Your task to perform on an android device: Check the weather Image 0: 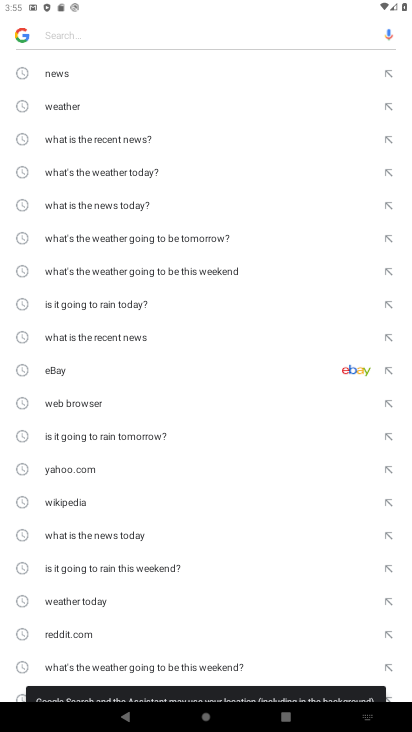
Step 0: click (53, 106)
Your task to perform on an android device: Check the weather Image 1: 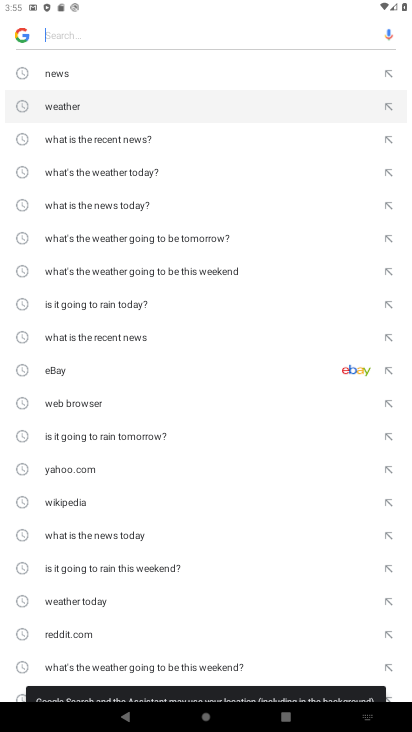
Step 1: click (67, 103)
Your task to perform on an android device: Check the weather Image 2: 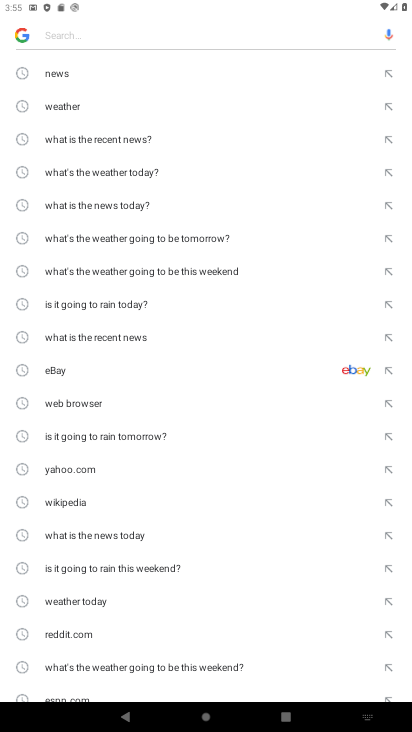
Step 2: click (67, 103)
Your task to perform on an android device: Check the weather Image 3: 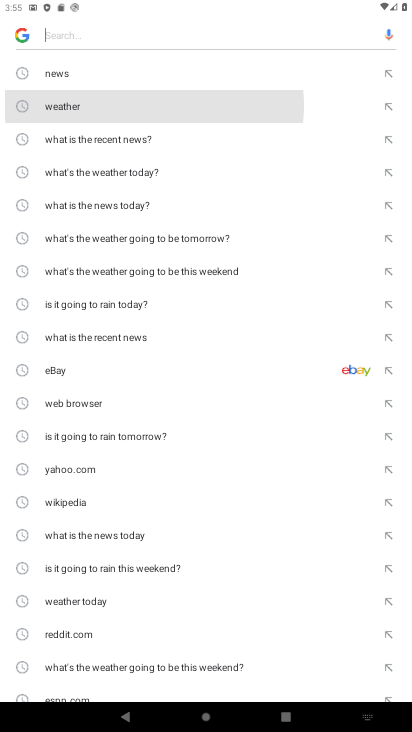
Step 3: click (68, 103)
Your task to perform on an android device: Check the weather Image 4: 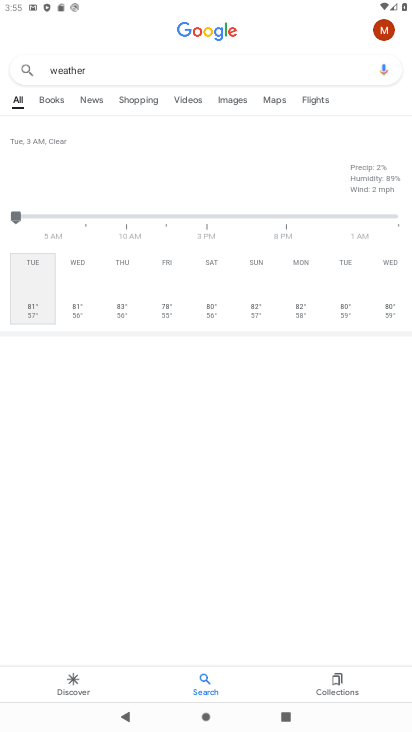
Step 4: task complete